Your task to perform on an android device: open chrome and create a bookmark for the current page Image 0: 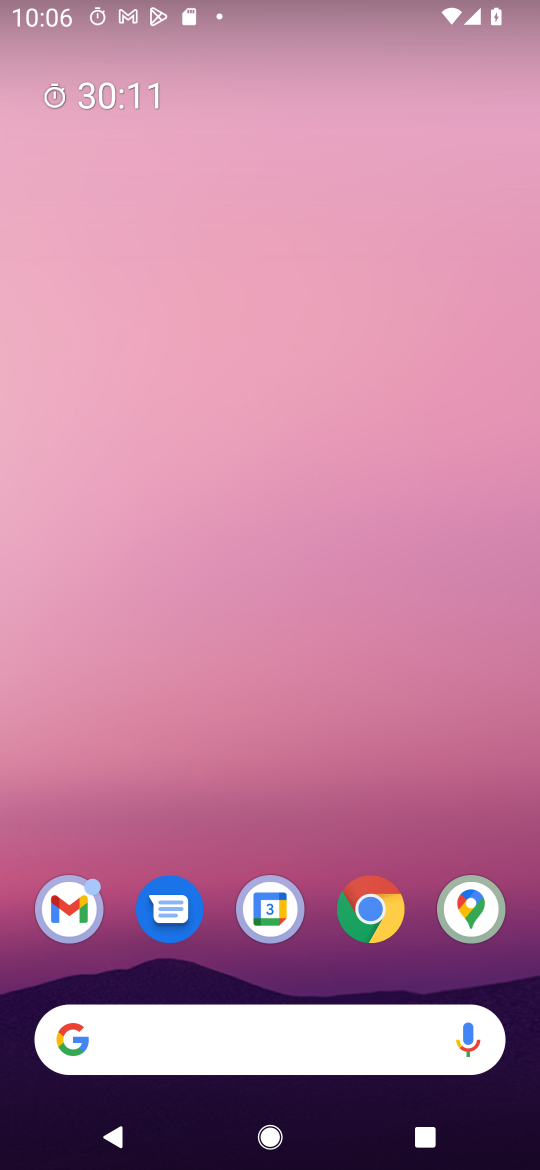
Step 0: press home button
Your task to perform on an android device: open chrome and create a bookmark for the current page Image 1: 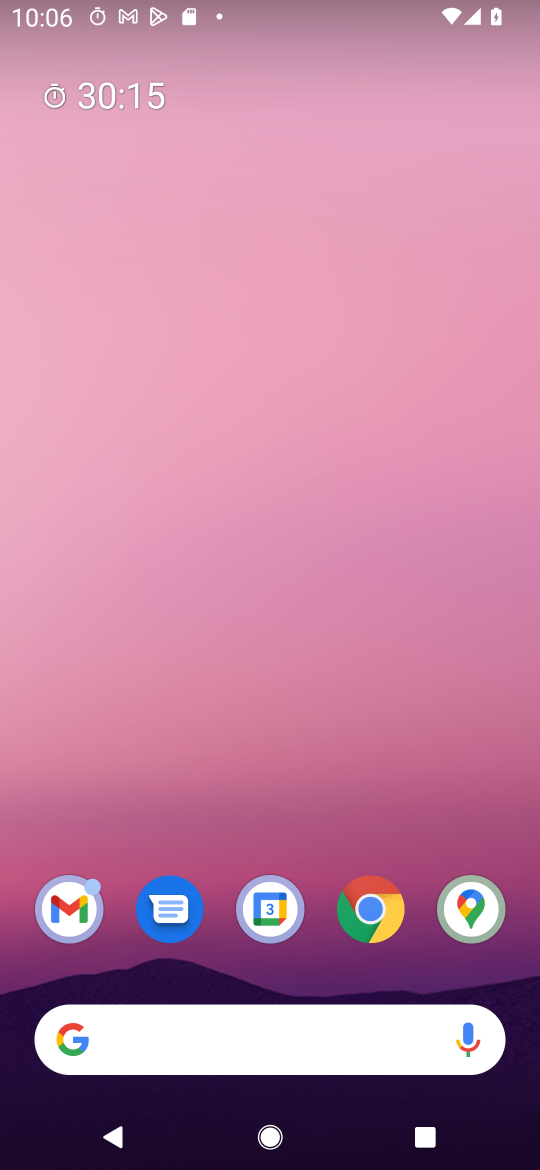
Step 1: drag from (414, 849) to (433, 229)
Your task to perform on an android device: open chrome and create a bookmark for the current page Image 2: 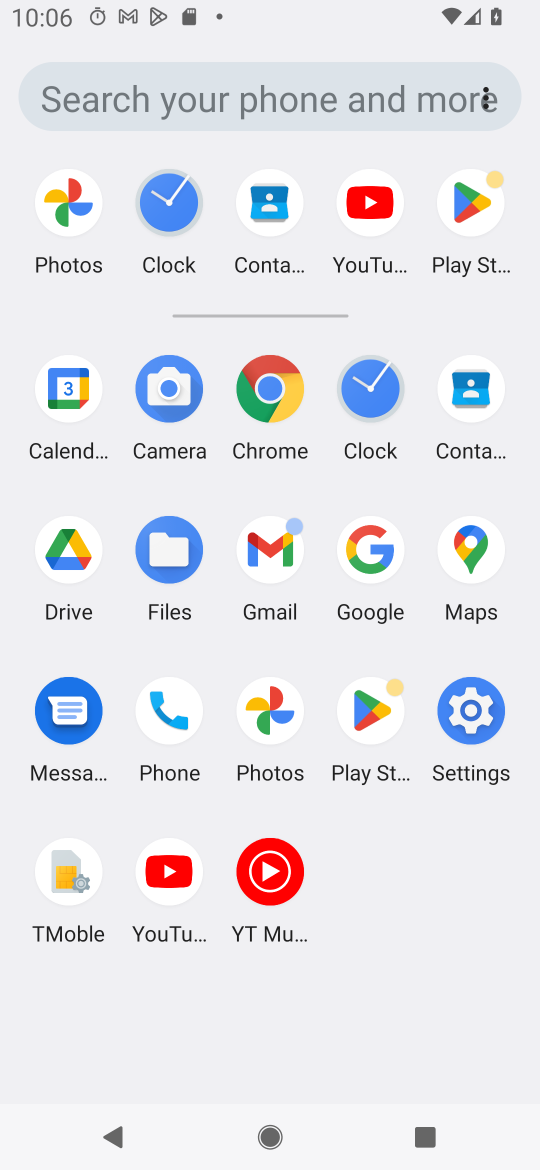
Step 2: click (272, 406)
Your task to perform on an android device: open chrome and create a bookmark for the current page Image 3: 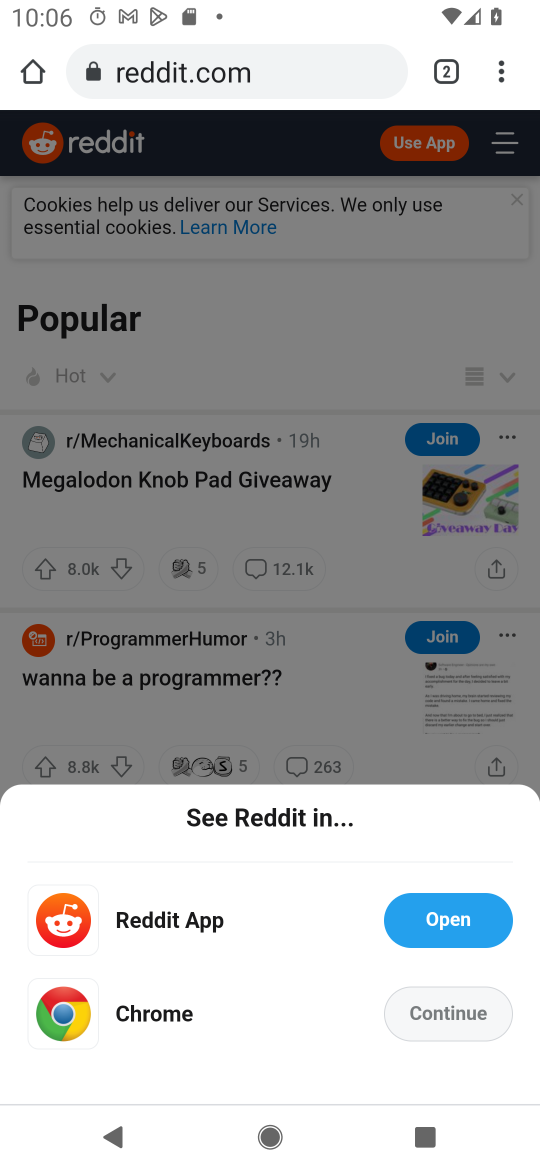
Step 3: click (501, 79)
Your task to perform on an android device: open chrome and create a bookmark for the current page Image 4: 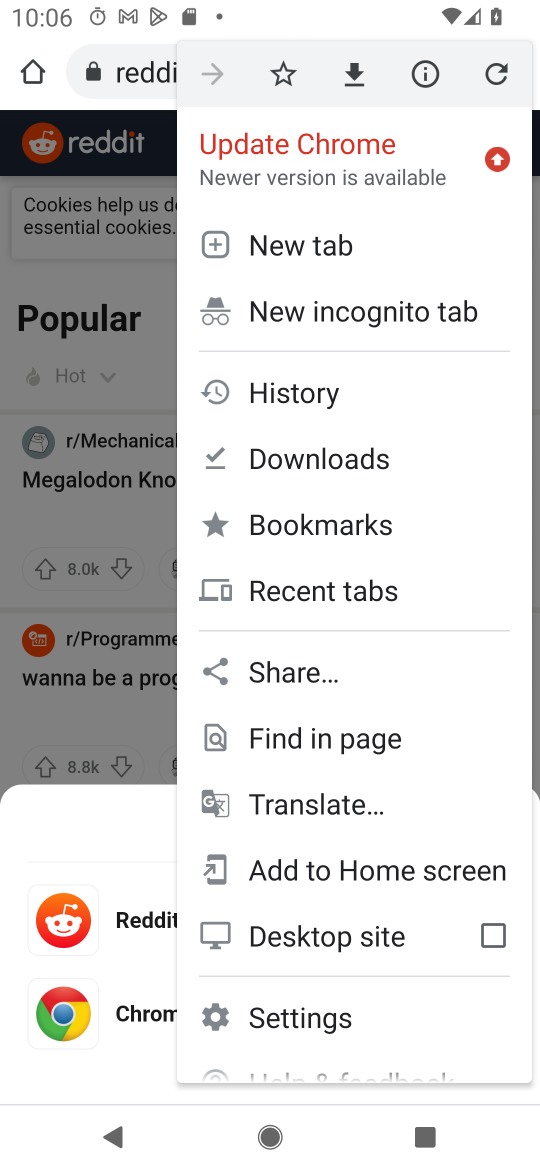
Step 4: click (275, 67)
Your task to perform on an android device: open chrome and create a bookmark for the current page Image 5: 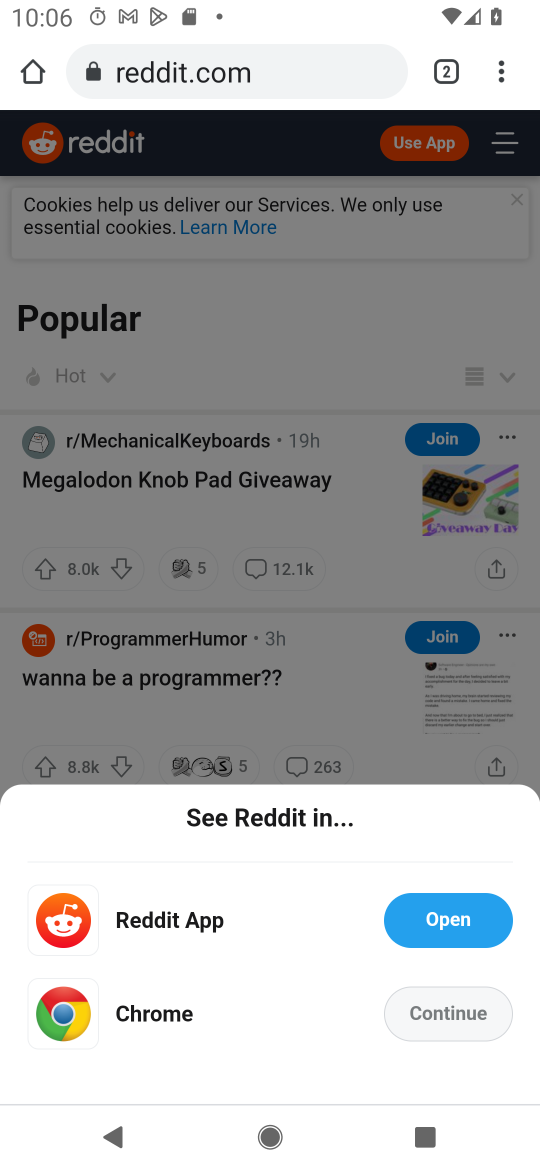
Step 5: task complete